Your task to perform on an android device: Open accessibility settings Image 0: 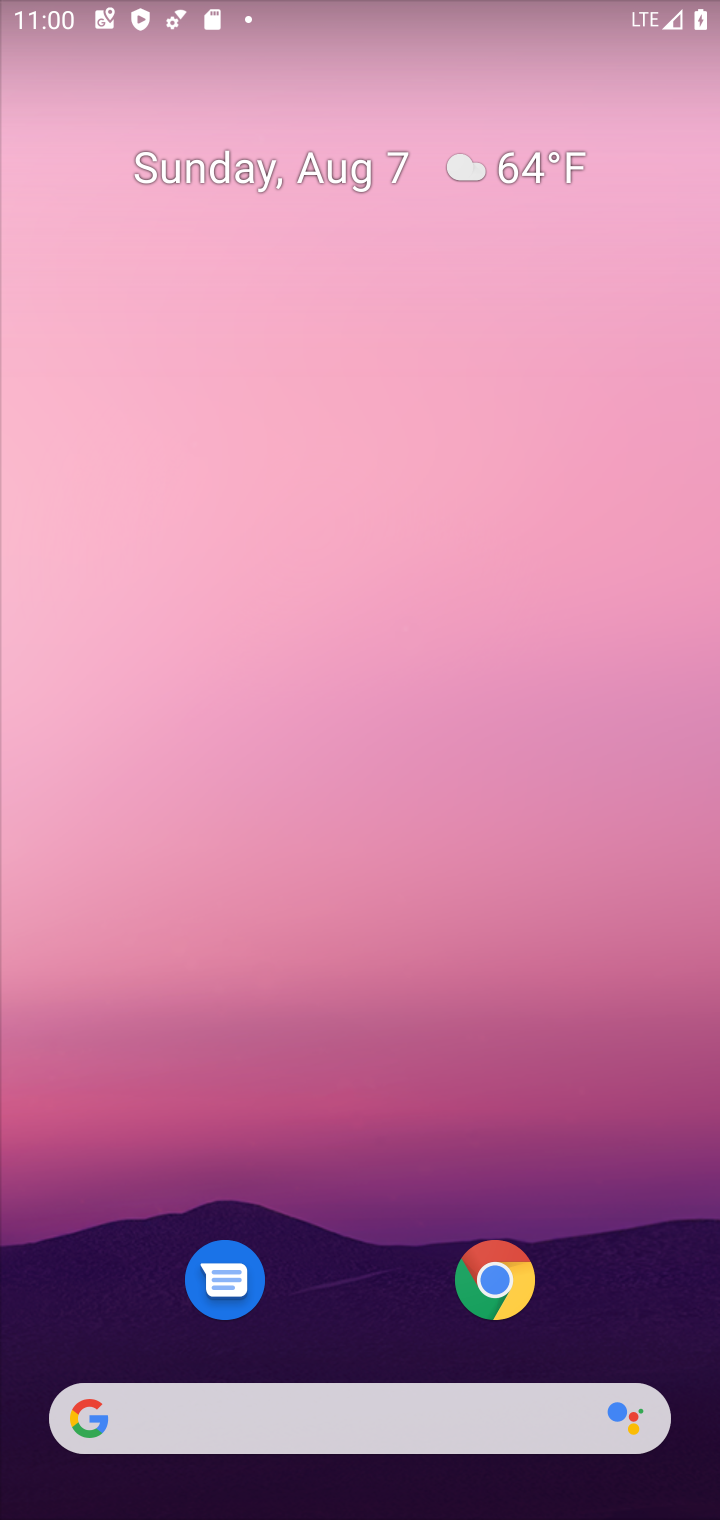
Step 0: drag from (338, 1203) to (358, 138)
Your task to perform on an android device: Open accessibility settings Image 1: 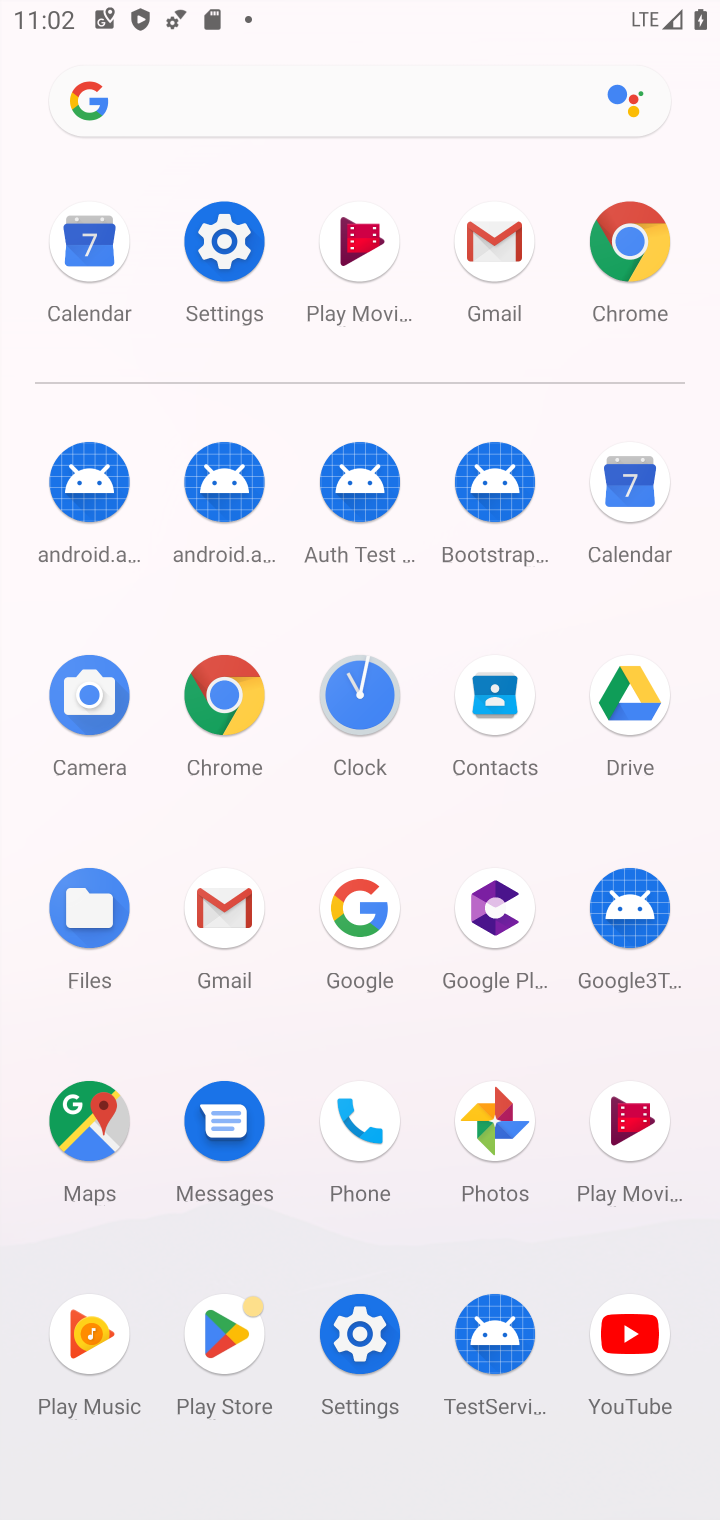
Step 1: click (211, 263)
Your task to perform on an android device: Open accessibility settings Image 2: 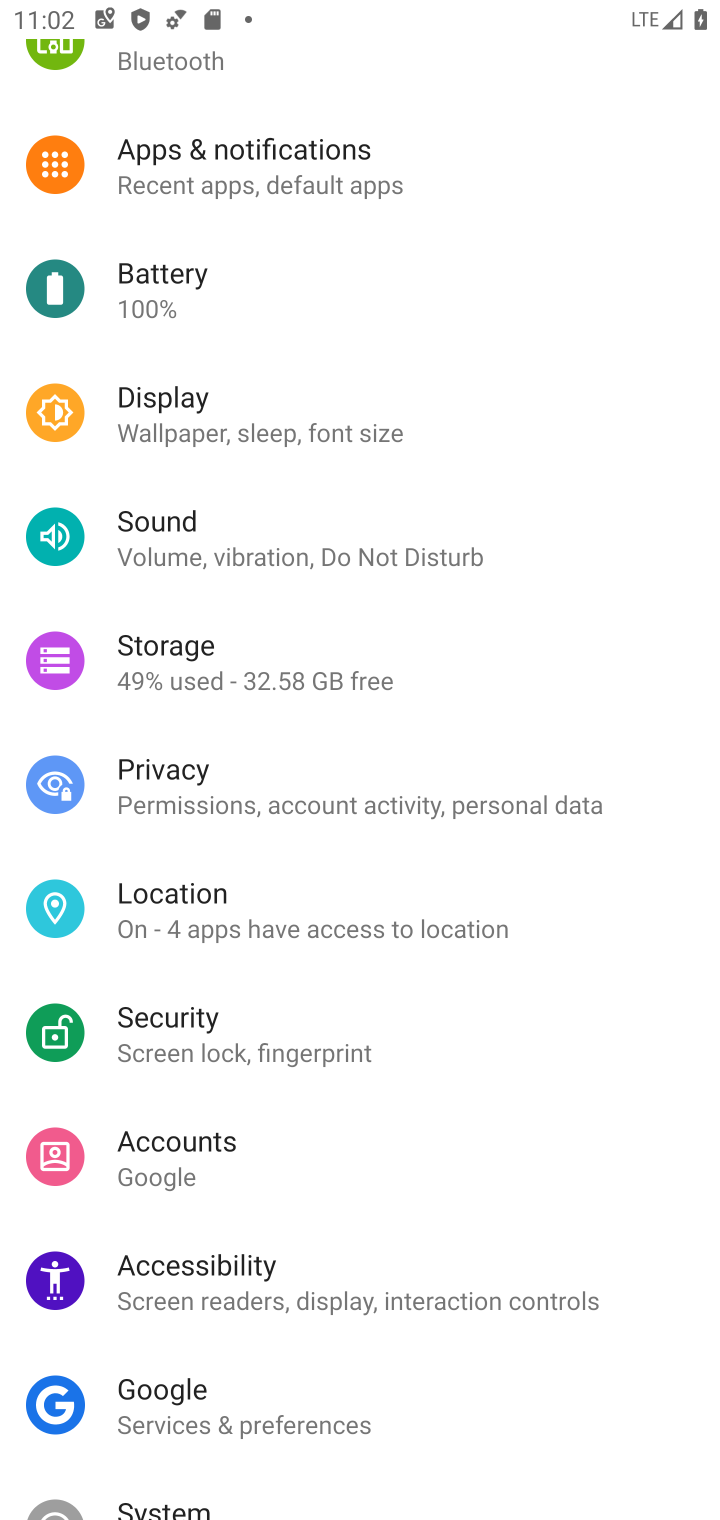
Step 2: click (239, 1269)
Your task to perform on an android device: Open accessibility settings Image 3: 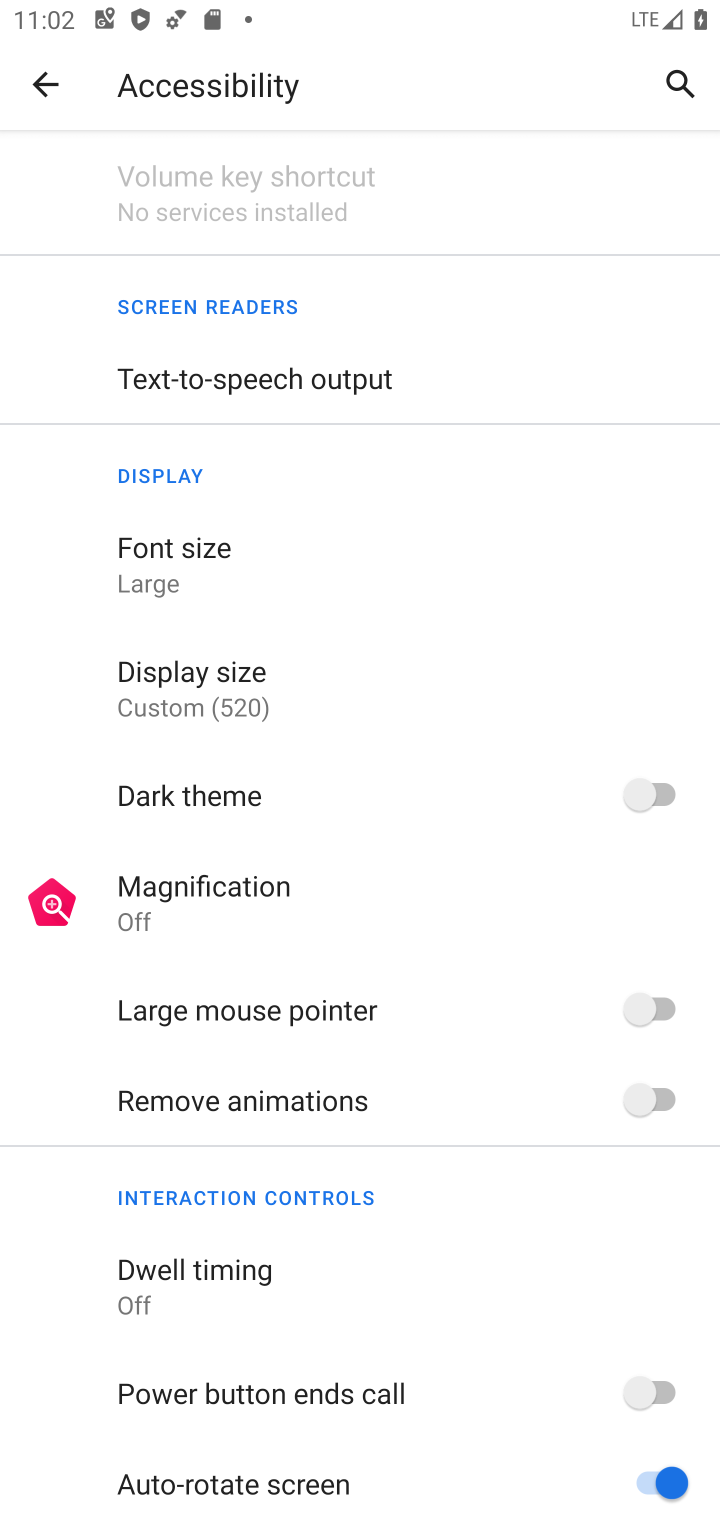
Step 3: task complete